Your task to perform on an android device: show emergency info Image 0: 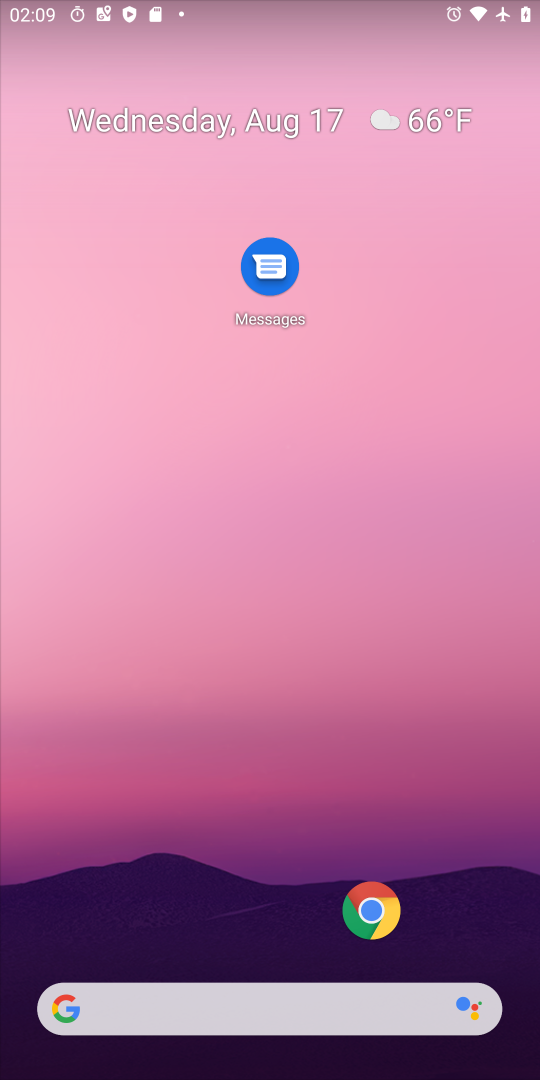
Step 0: drag from (261, 890) to (151, 140)
Your task to perform on an android device: show emergency info Image 1: 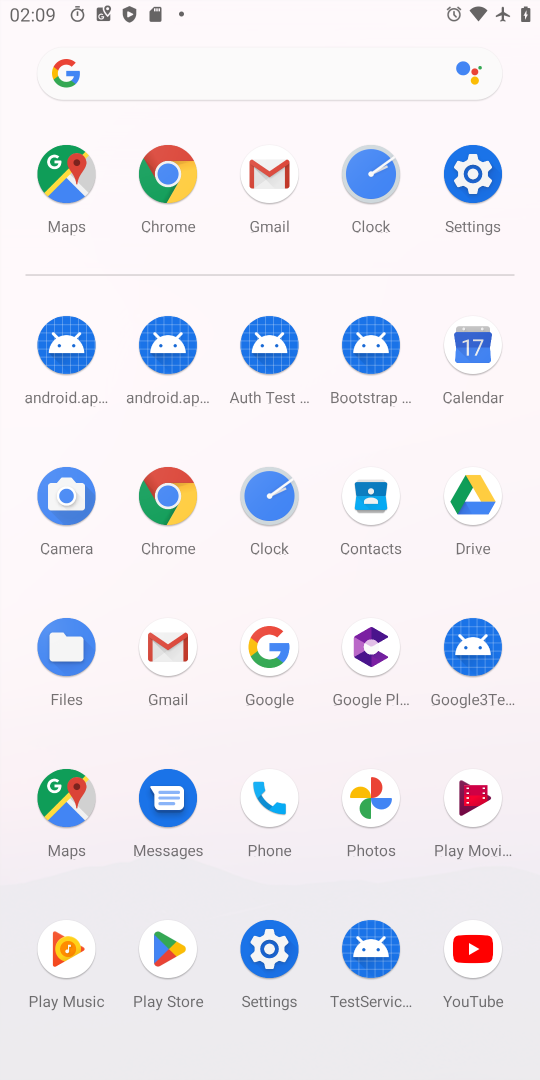
Step 1: click (271, 945)
Your task to perform on an android device: show emergency info Image 2: 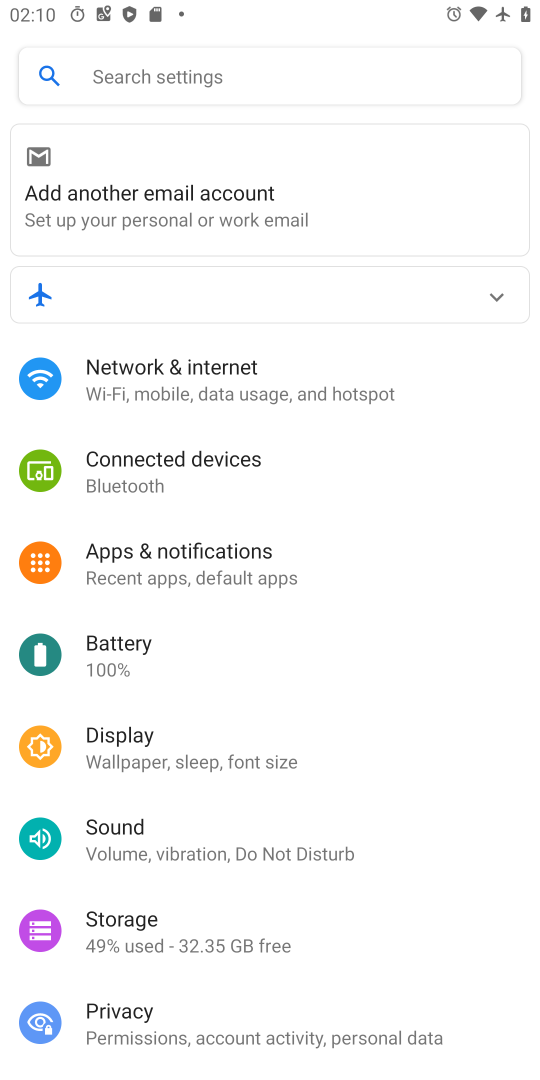
Step 2: drag from (224, 955) to (277, 215)
Your task to perform on an android device: show emergency info Image 3: 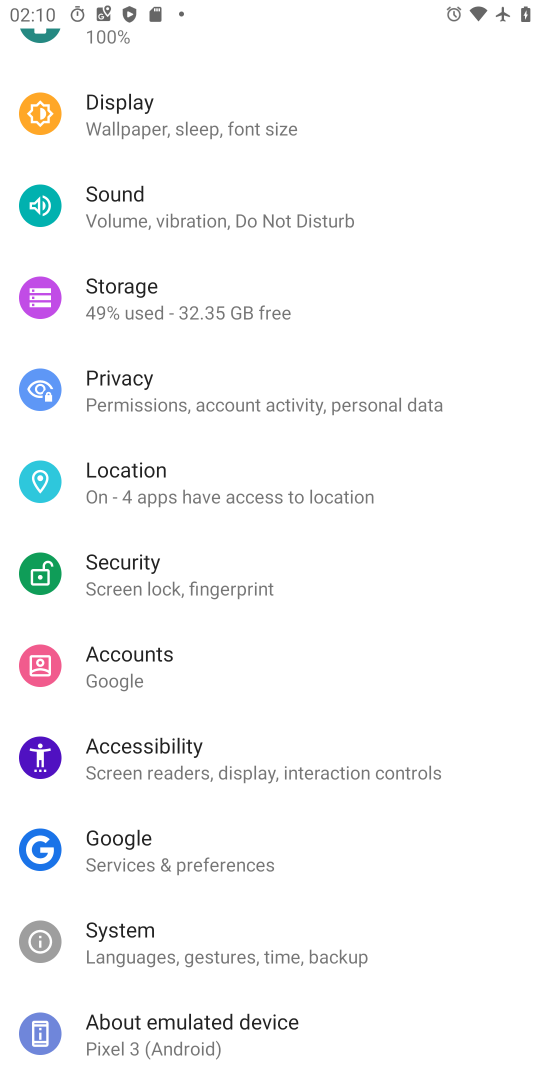
Step 3: click (149, 1035)
Your task to perform on an android device: show emergency info Image 4: 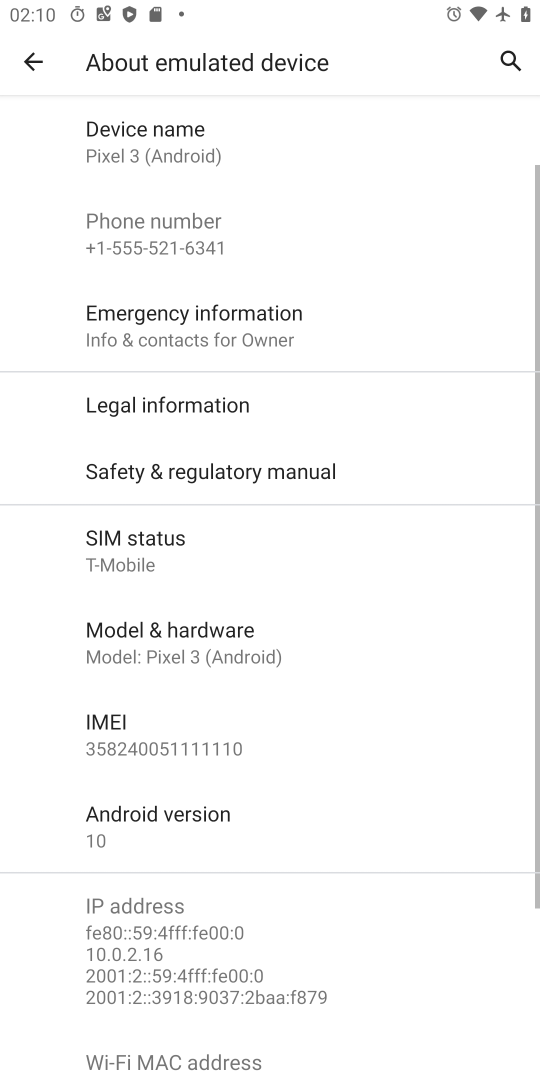
Step 4: click (225, 315)
Your task to perform on an android device: show emergency info Image 5: 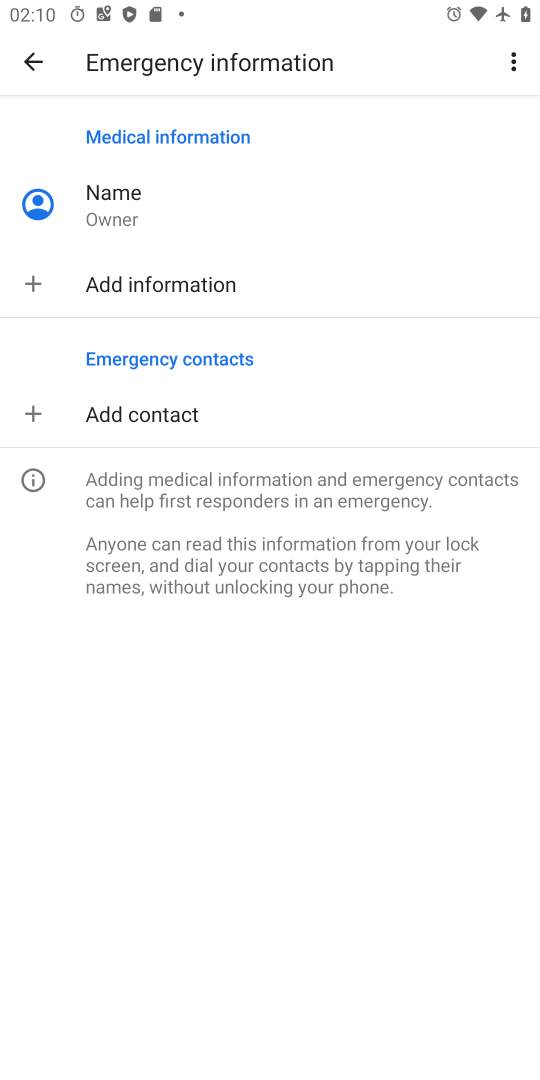
Step 5: task complete